Your task to perform on an android device: Go to Wikipedia Image 0: 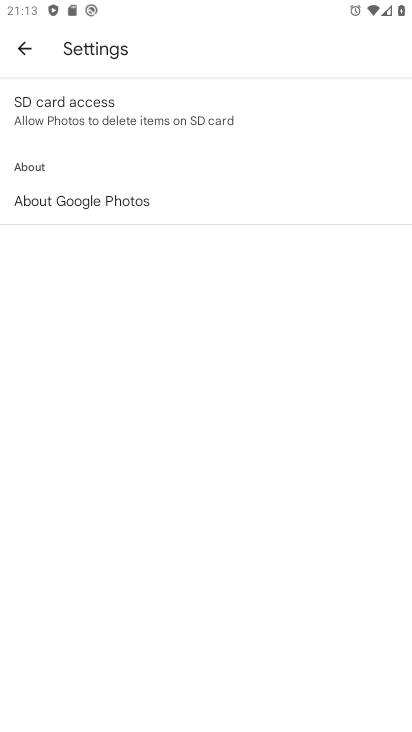
Step 0: press home button
Your task to perform on an android device: Go to Wikipedia Image 1: 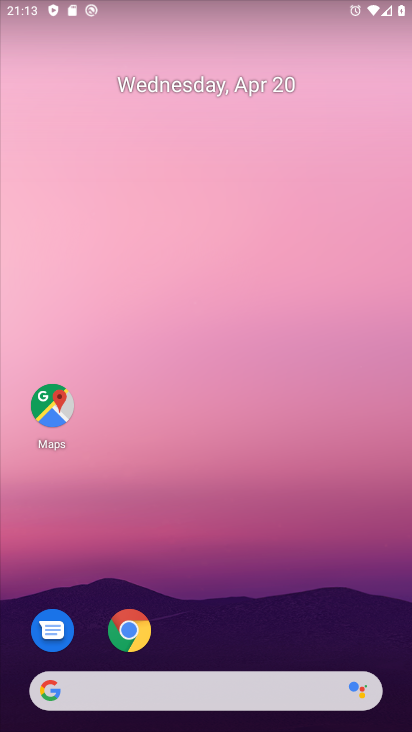
Step 1: click (122, 629)
Your task to perform on an android device: Go to Wikipedia Image 2: 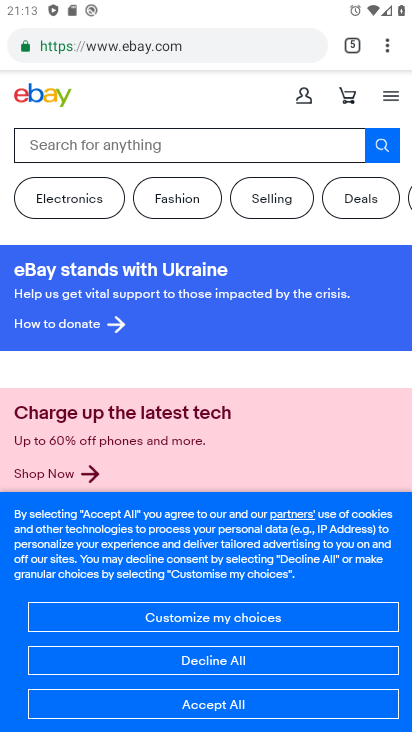
Step 2: click (350, 44)
Your task to perform on an android device: Go to Wikipedia Image 3: 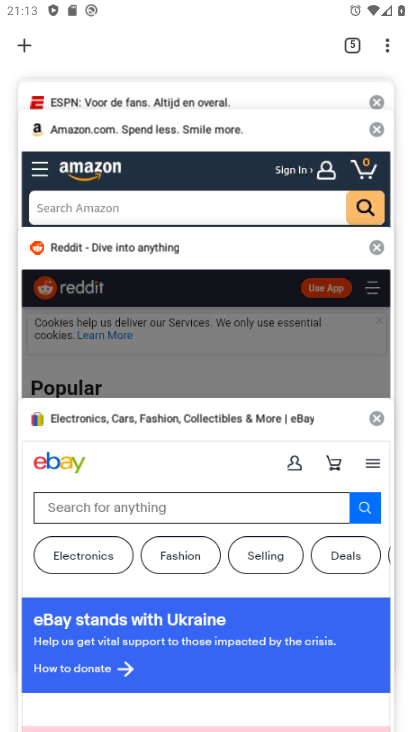
Step 3: click (23, 49)
Your task to perform on an android device: Go to Wikipedia Image 4: 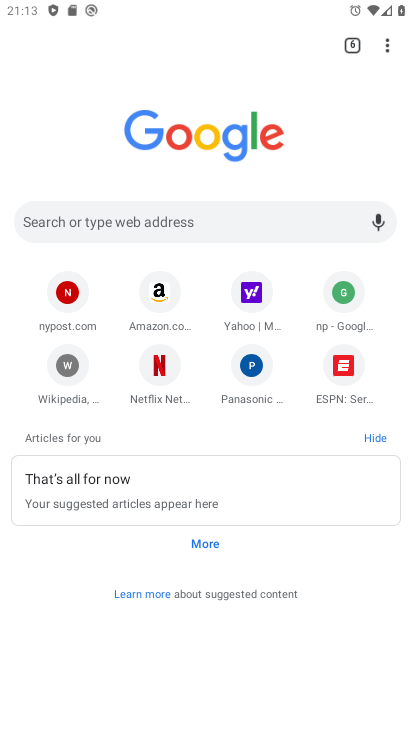
Step 4: click (73, 373)
Your task to perform on an android device: Go to Wikipedia Image 5: 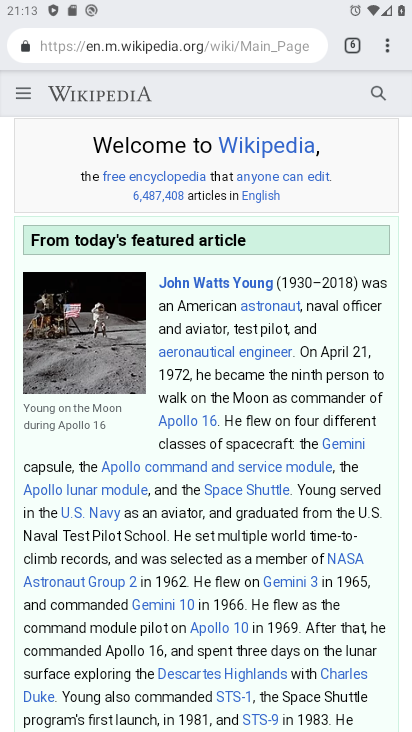
Step 5: task complete